Your task to perform on an android device: turn on priority inbox in the gmail app Image 0: 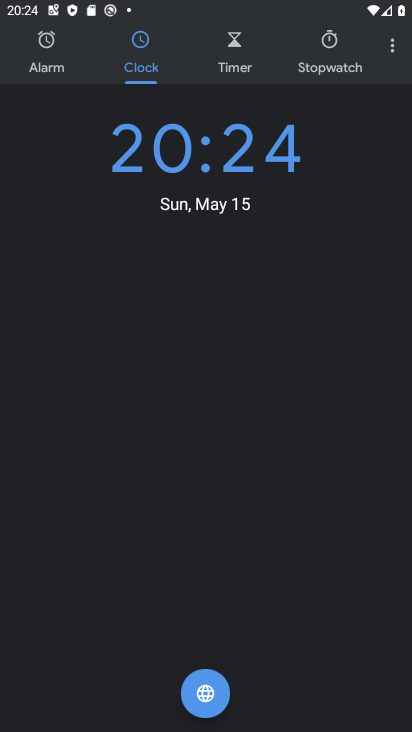
Step 0: press home button
Your task to perform on an android device: turn on priority inbox in the gmail app Image 1: 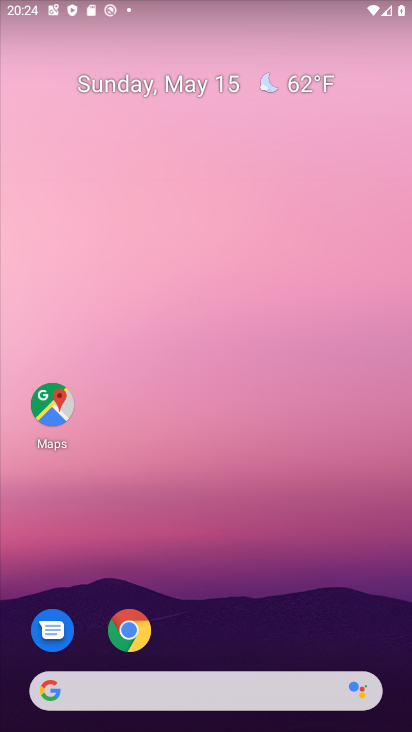
Step 1: drag from (221, 618) to (287, 52)
Your task to perform on an android device: turn on priority inbox in the gmail app Image 2: 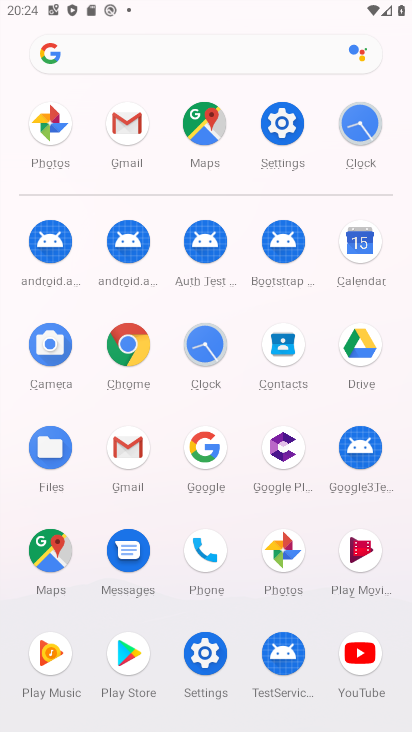
Step 2: click (126, 459)
Your task to perform on an android device: turn on priority inbox in the gmail app Image 3: 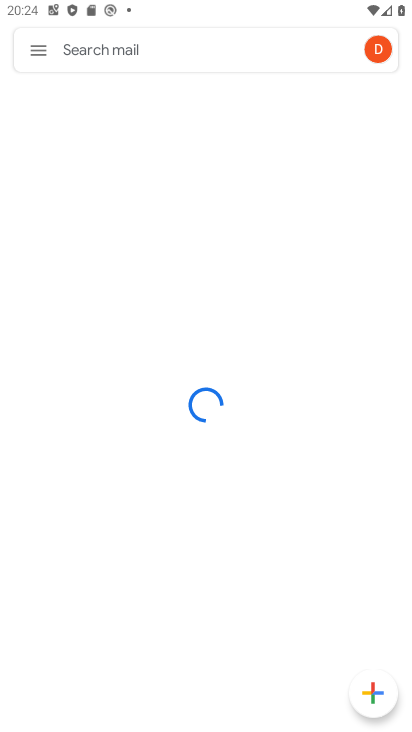
Step 3: click (31, 55)
Your task to perform on an android device: turn on priority inbox in the gmail app Image 4: 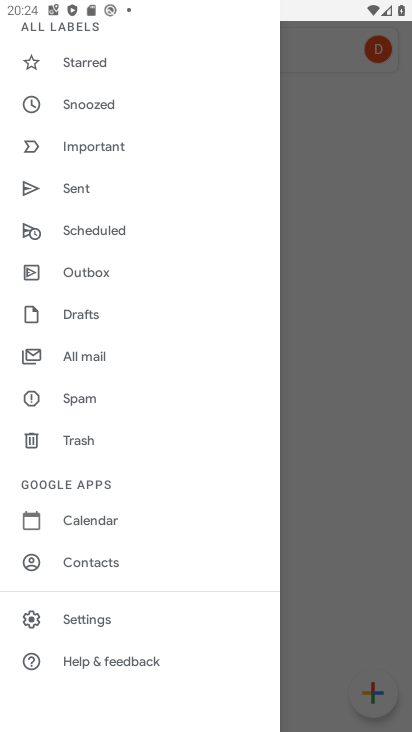
Step 4: click (87, 621)
Your task to perform on an android device: turn on priority inbox in the gmail app Image 5: 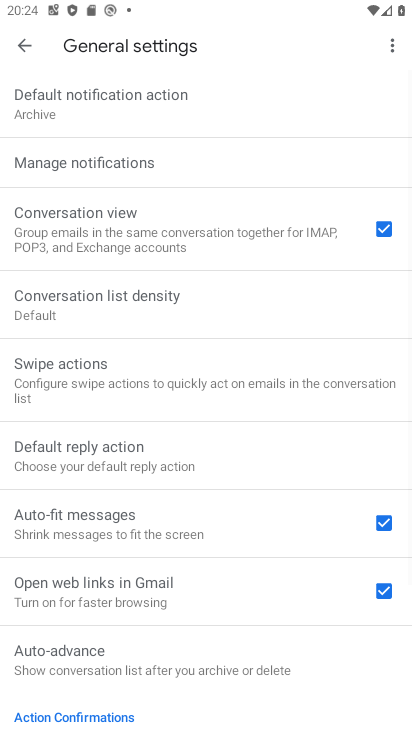
Step 5: click (20, 33)
Your task to perform on an android device: turn on priority inbox in the gmail app Image 6: 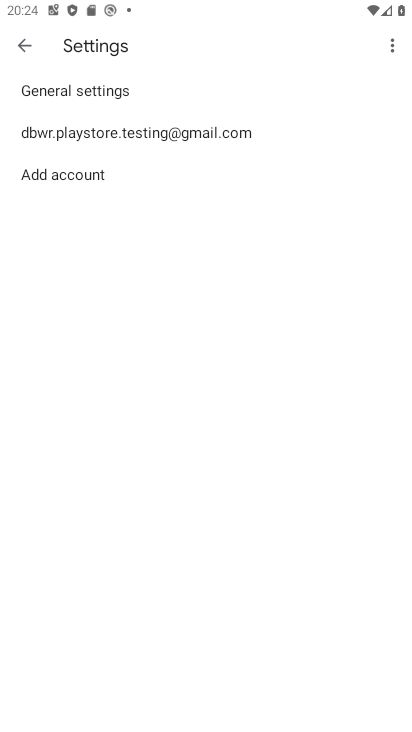
Step 6: click (112, 129)
Your task to perform on an android device: turn on priority inbox in the gmail app Image 7: 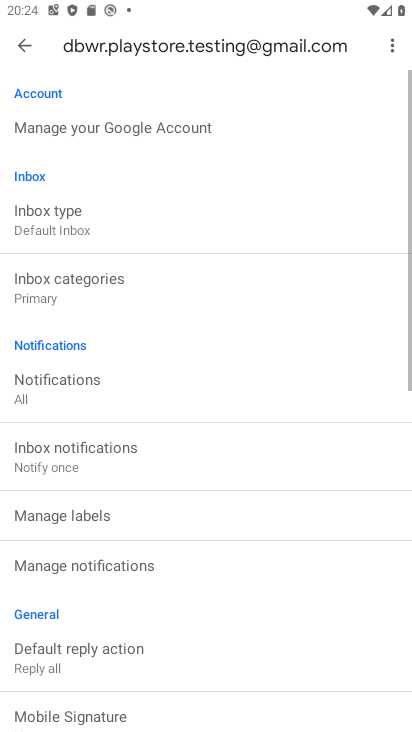
Step 7: click (86, 225)
Your task to perform on an android device: turn on priority inbox in the gmail app Image 8: 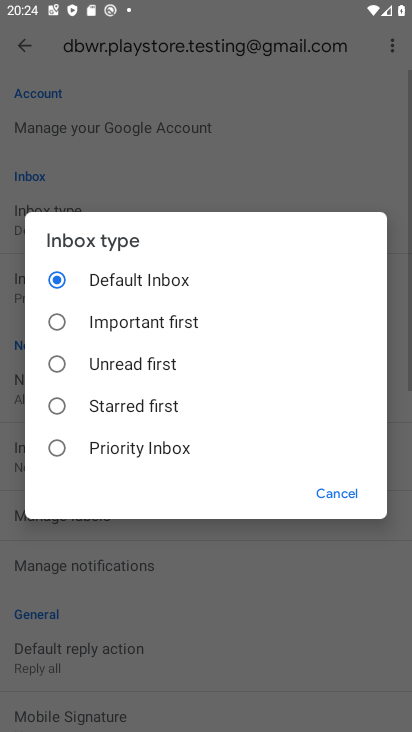
Step 8: click (85, 446)
Your task to perform on an android device: turn on priority inbox in the gmail app Image 9: 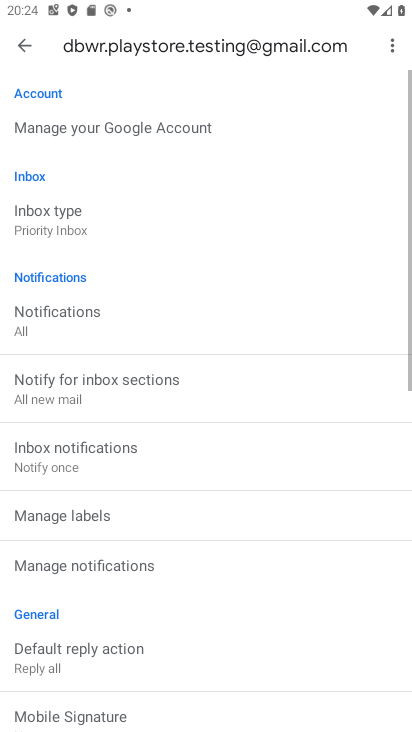
Step 9: task complete